Your task to perform on an android device: turn on sleep mode Image 0: 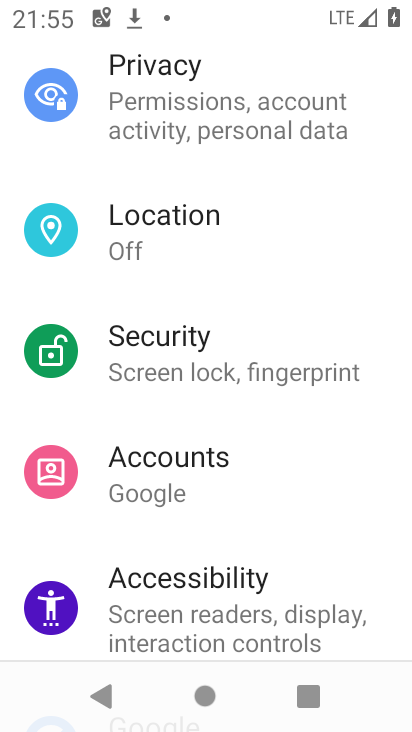
Step 0: drag from (257, 229) to (271, 731)
Your task to perform on an android device: turn on sleep mode Image 1: 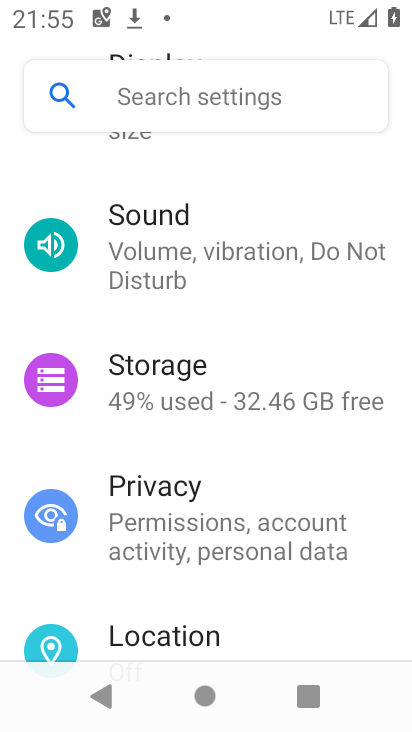
Step 1: click (153, 99)
Your task to perform on an android device: turn on sleep mode Image 2: 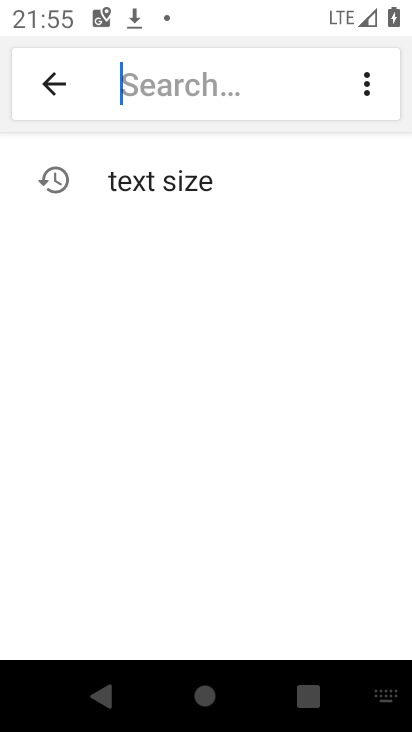
Step 2: type "sleep mode"
Your task to perform on an android device: turn on sleep mode Image 3: 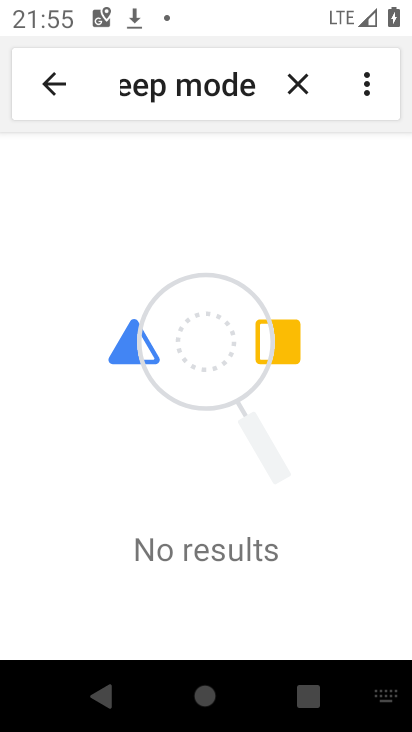
Step 3: task complete